Your task to perform on an android device: Search for vegetarian restaurants on Maps Image 0: 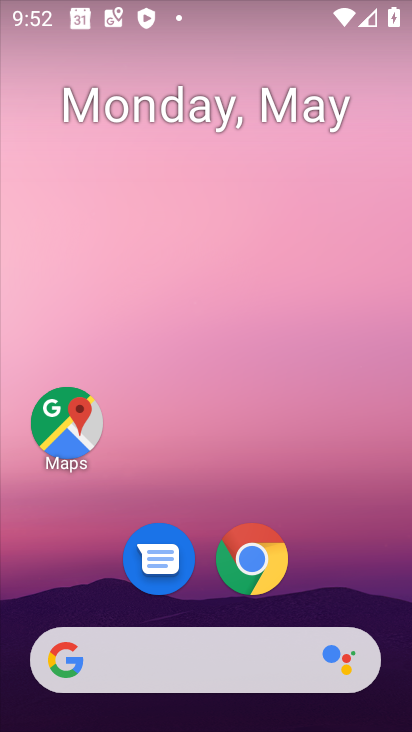
Step 0: click (50, 434)
Your task to perform on an android device: Search for vegetarian restaurants on Maps Image 1: 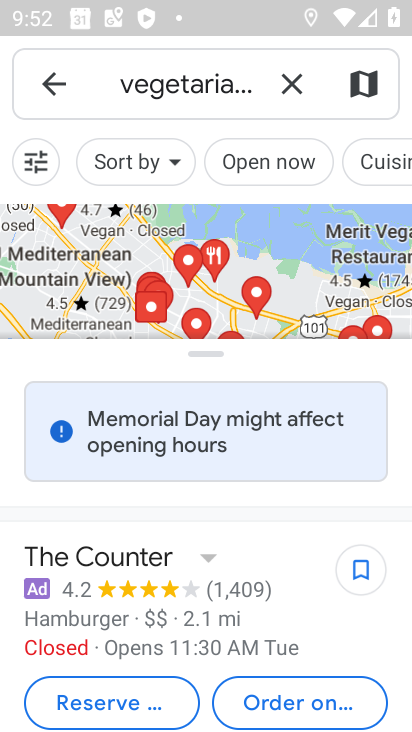
Step 1: task complete